Your task to perform on an android device: empty trash in the gmail app Image 0: 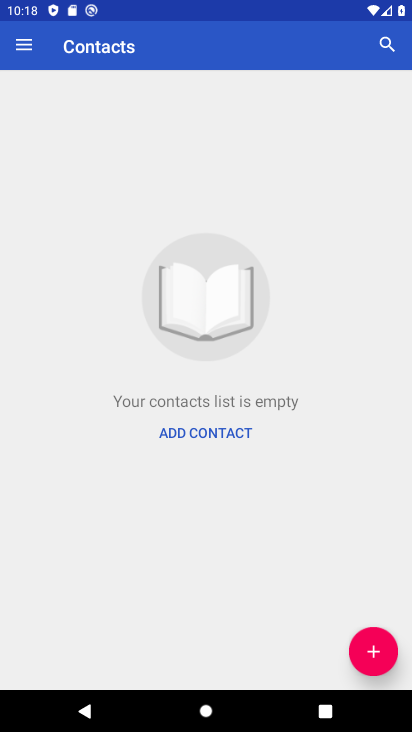
Step 0: press home button
Your task to perform on an android device: empty trash in the gmail app Image 1: 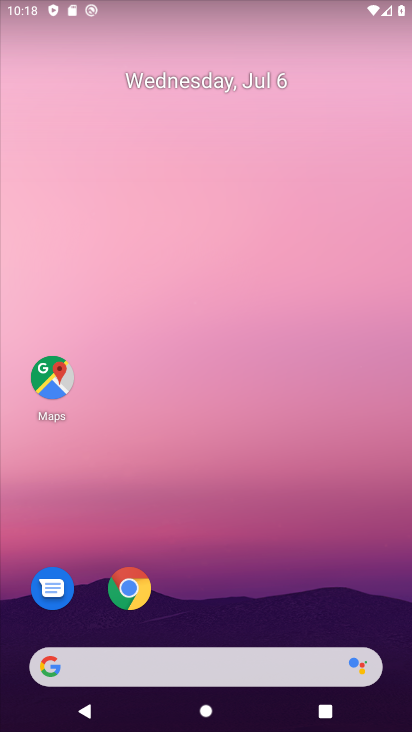
Step 1: drag from (180, 656) to (336, 32)
Your task to perform on an android device: empty trash in the gmail app Image 2: 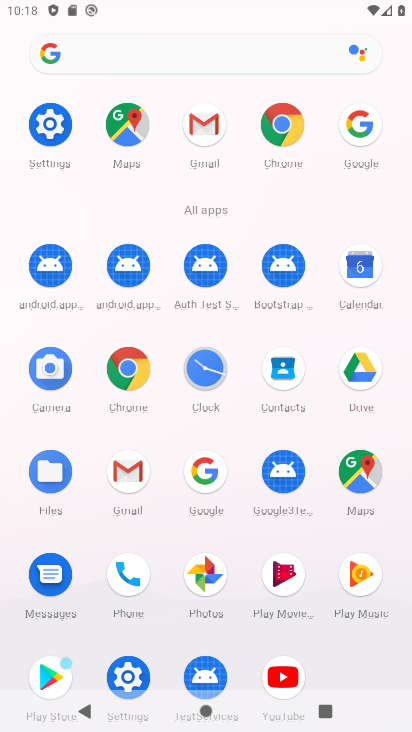
Step 2: click (198, 129)
Your task to perform on an android device: empty trash in the gmail app Image 3: 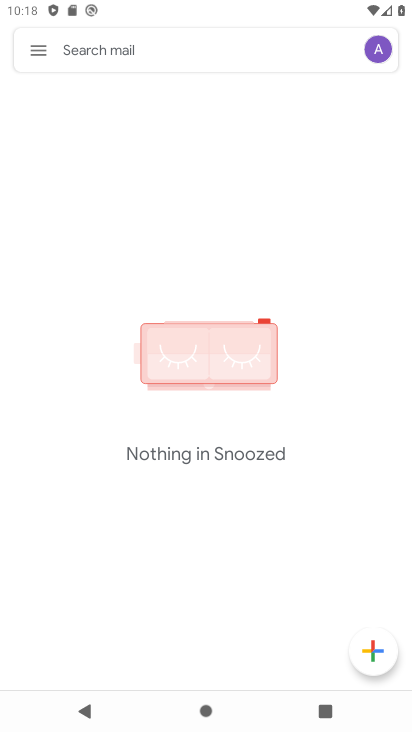
Step 3: click (35, 48)
Your task to perform on an android device: empty trash in the gmail app Image 4: 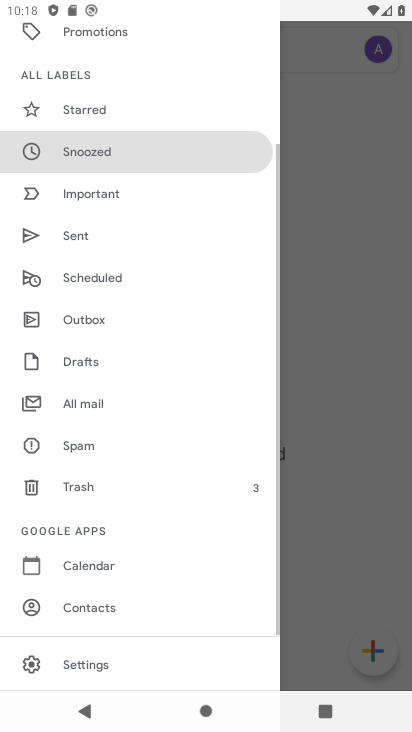
Step 4: click (85, 485)
Your task to perform on an android device: empty trash in the gmail app Image 5: 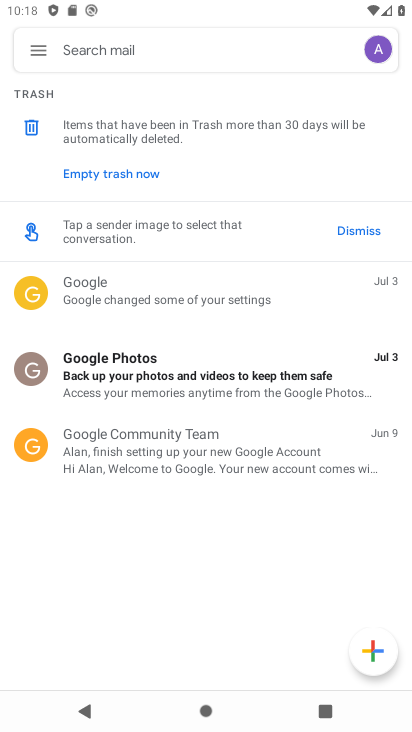
Step 5: click (119, 173)
Your task to perform on an android device: empty trash in the gmail app Image 6: 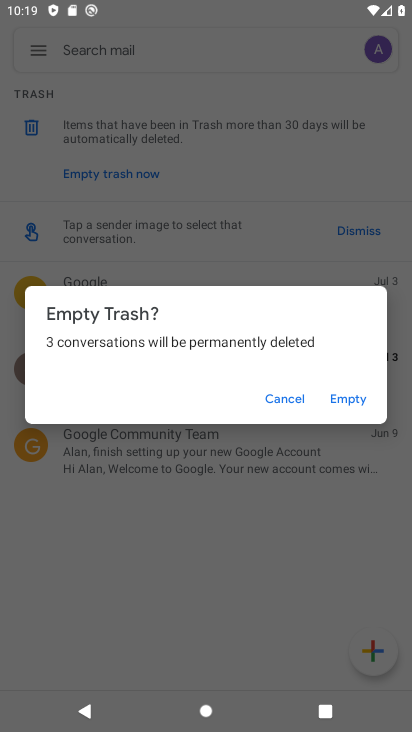
Step 6: click (345, 402)
Your task to perform on an android device: empty trash in the gmail app Image 7: 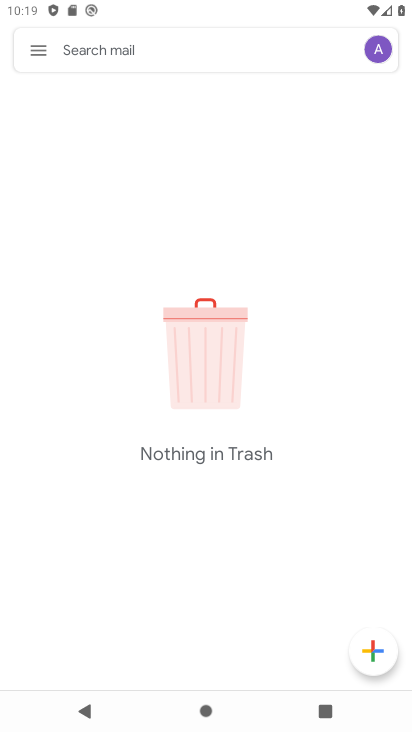
Step 7: task complete